Your task to perform on an android device: Open Google Chrome and click the shortcut for Amazon.com Image 0: 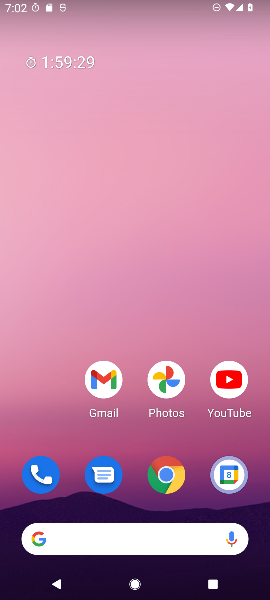
Step 0: drag from (63, 437) to (61, 141)
Your task to perform on an android device: Open Google Chrome and click the shortcut for Amazon.com Image 1: 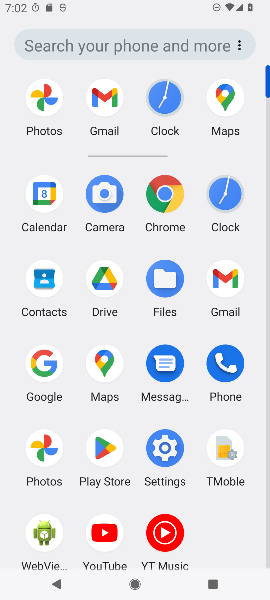
Step 1: click (163, 187)
Your task to perform on an android device: Open Google Chrome and click the shortcut for Amazon.com Image 2: 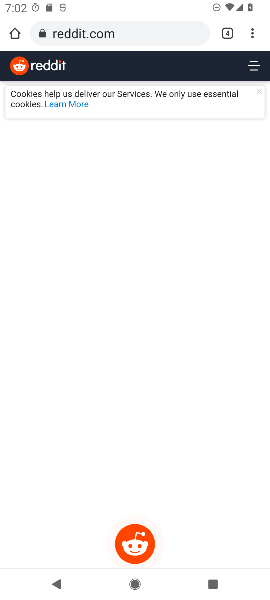
Step 2: press back button
Your task to perform on an android device: Open Google Chrome and click the shortcut for Amazon.com Image 3: 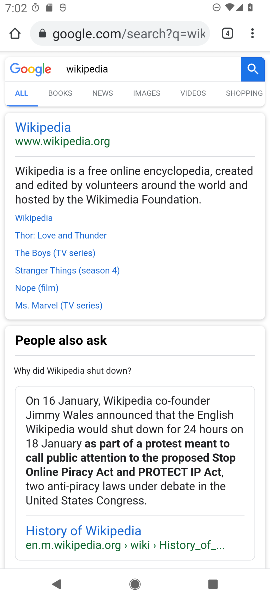
Step 3: press back button
Your task to perform on an android device: Open Google Chrome and click the shortcut for Amazon.com Image 4: 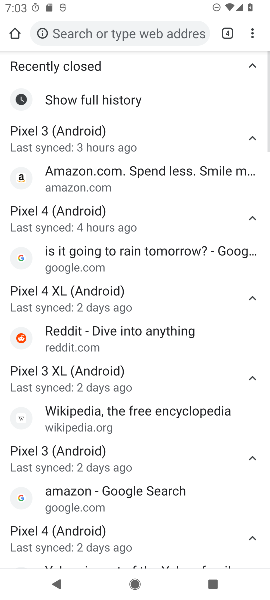
Step 4: press back button
Your task to perform on an android device: Open Google Chrome and click the shortcut for Amazon.com Image 5: 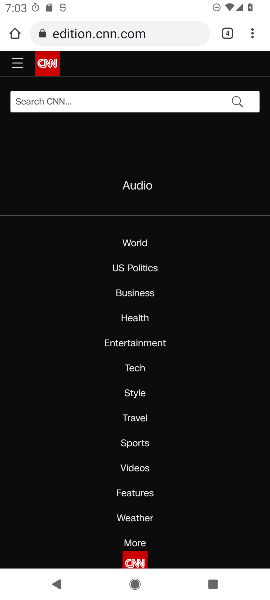
Step 5: press back button
Your task to perform on an android device: Open Google Chrome and click the shortcut for Amazon.com Image 6: 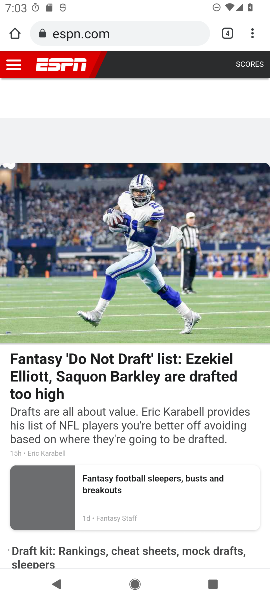
Step 6: press back button
Your task to perform on an android device: Open Google Chrome and click the shortcut for Amazon.com Image 7: 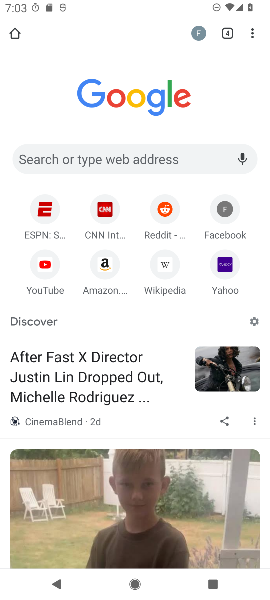
Step 7: click (101, 262)
Your task to perform on an android device: Open Google Chrome and click the shortcut for Amazon.com Image 8: 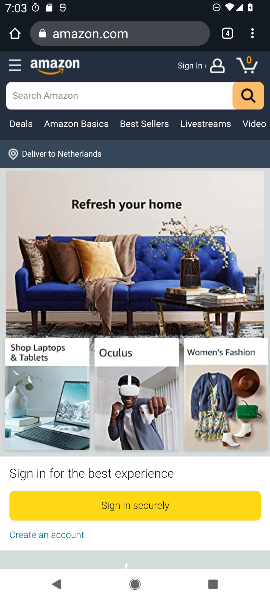
Step 8: task complete